Your task to perform on an android device: What's the news in the Bahamas? Image 0: 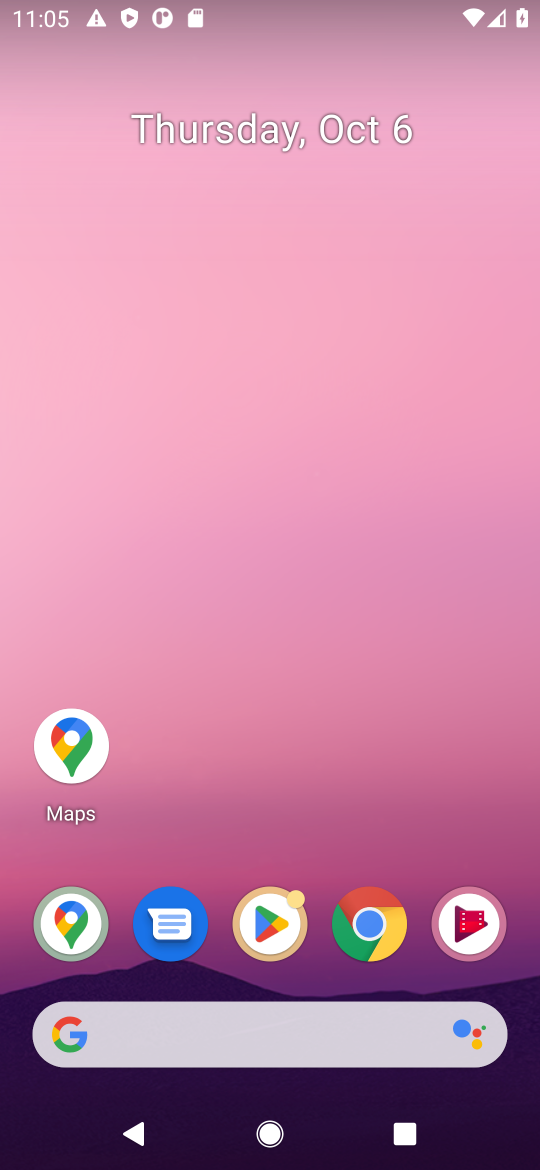
Step 0: click (369, 931)
Your task to perform on an android device: What's the news in the Bahamas? Image 1: 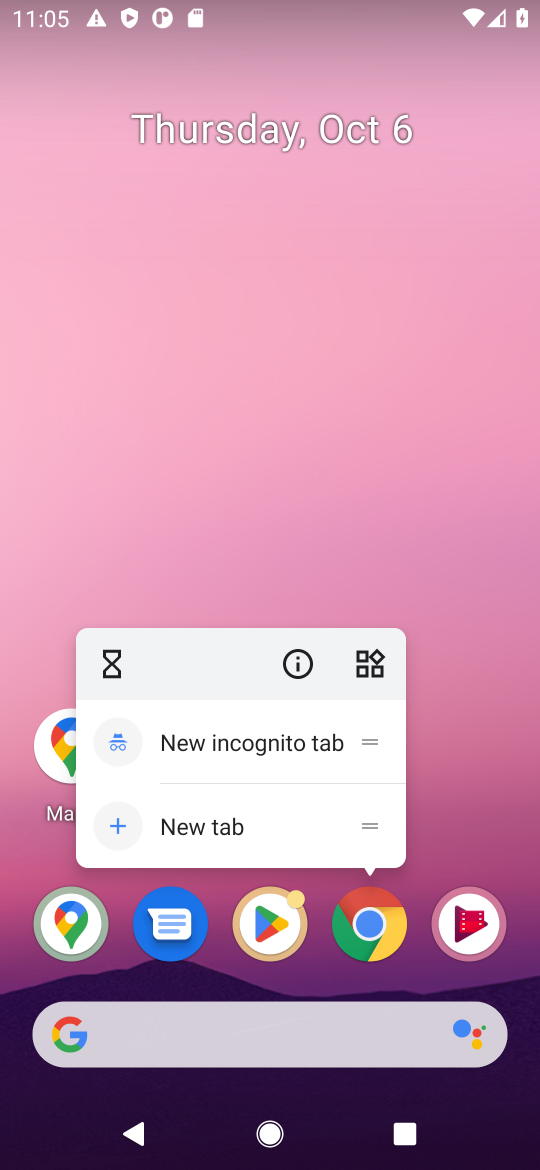
Step 1: click (369, 931)
Your task to perform on an android device: What's the news in the Bahamas? Image 2: 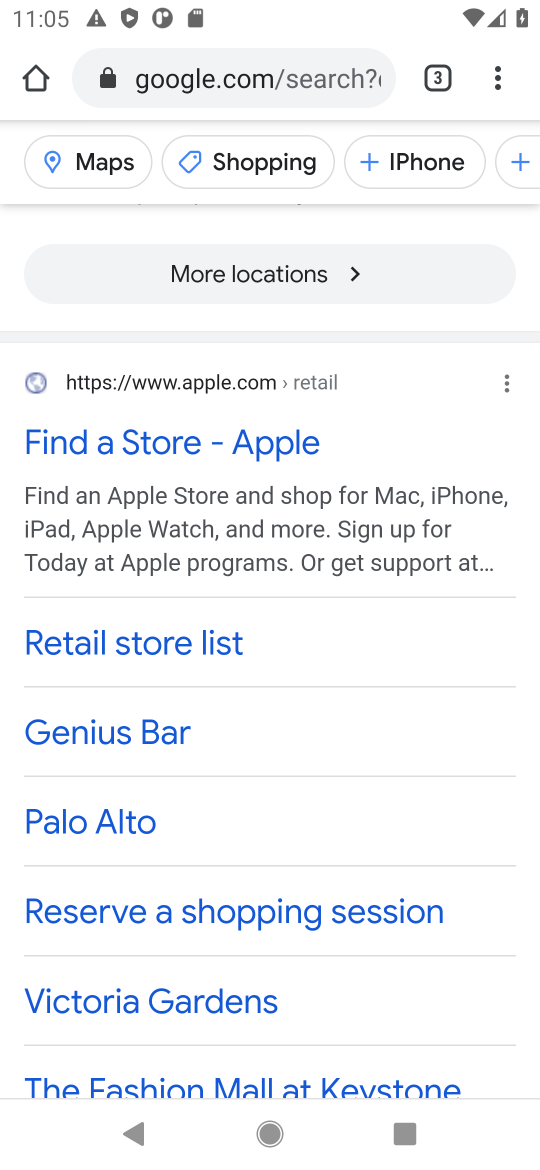
Step 2: click (280, 86)
Your task to perform on an android device: What's the news in the Bahamas? Image 3: 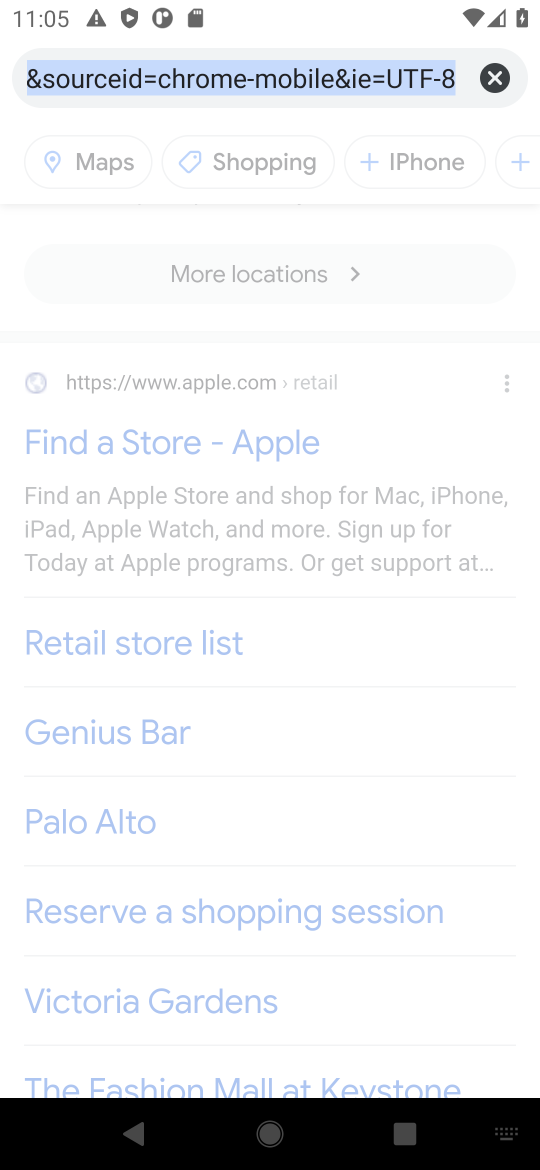
Step 3: click (496, 76)
Your task to perform on an android device: What's the news in the Bahamas? Image 4: 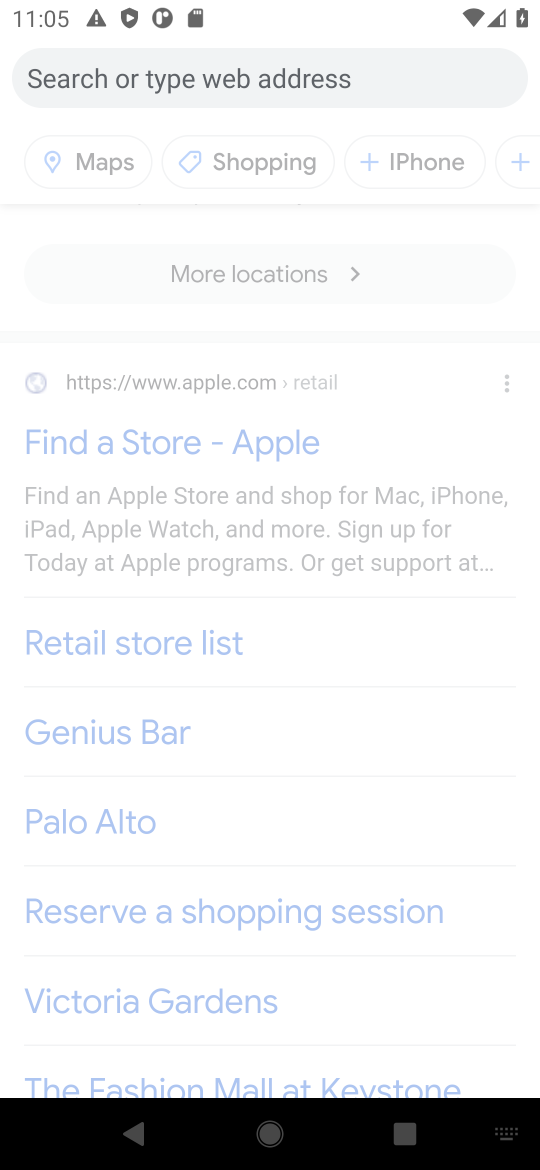
Step 4: type "news in the Bahamas"
Your task to perform on an android device: What's the news in the Bahamas? Image 5: 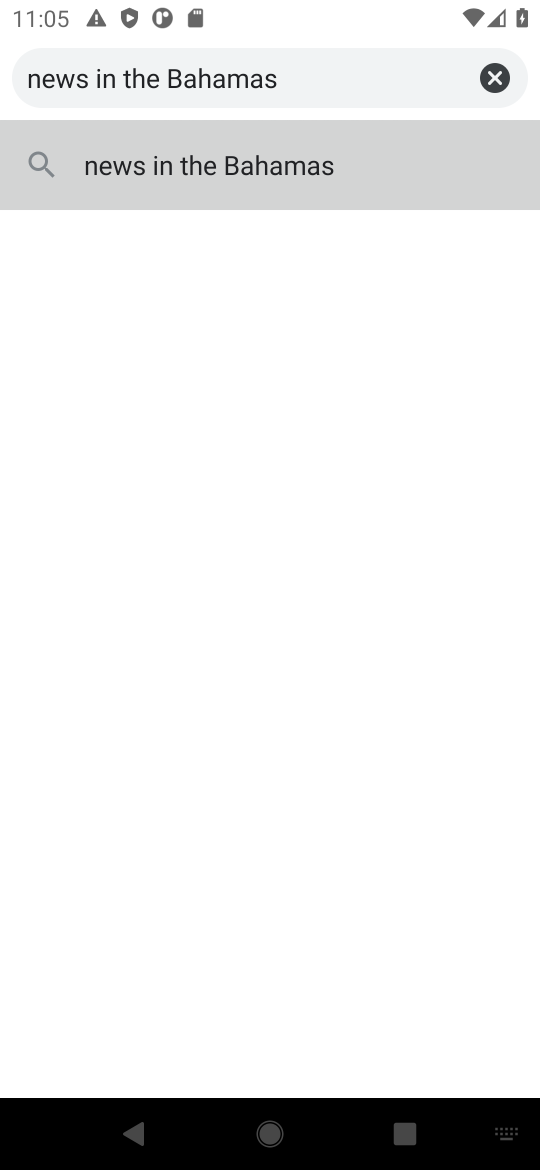
Step 5: click (251, 172)
Your task to perform on an android device: What's the news in the Bahamas? Image 6: 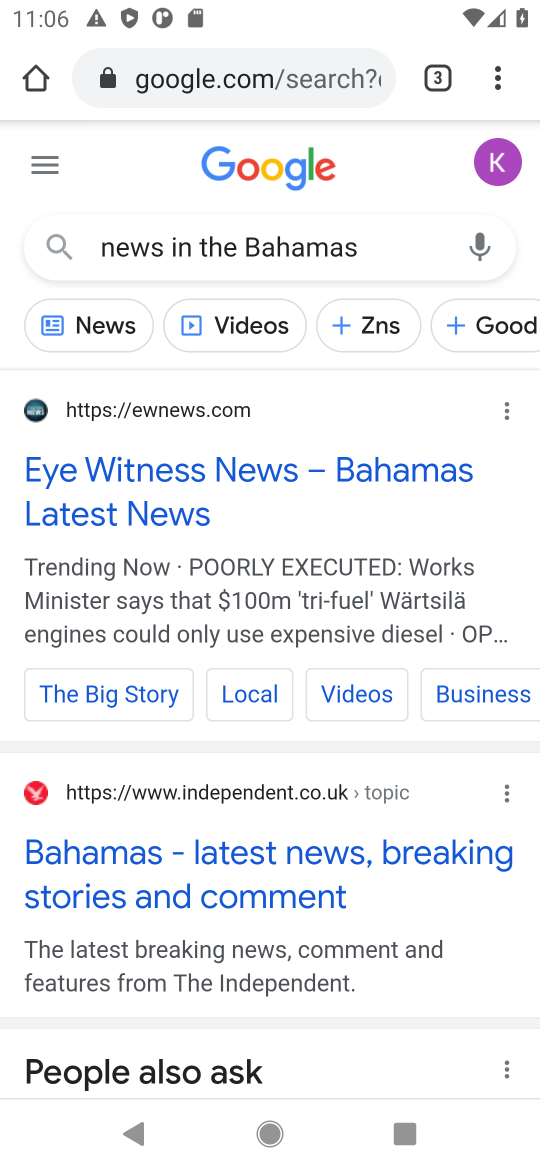
Step 6: click (115, 328)
Your task to perform on an android device: What's the news in the Bahamas? Image 7: 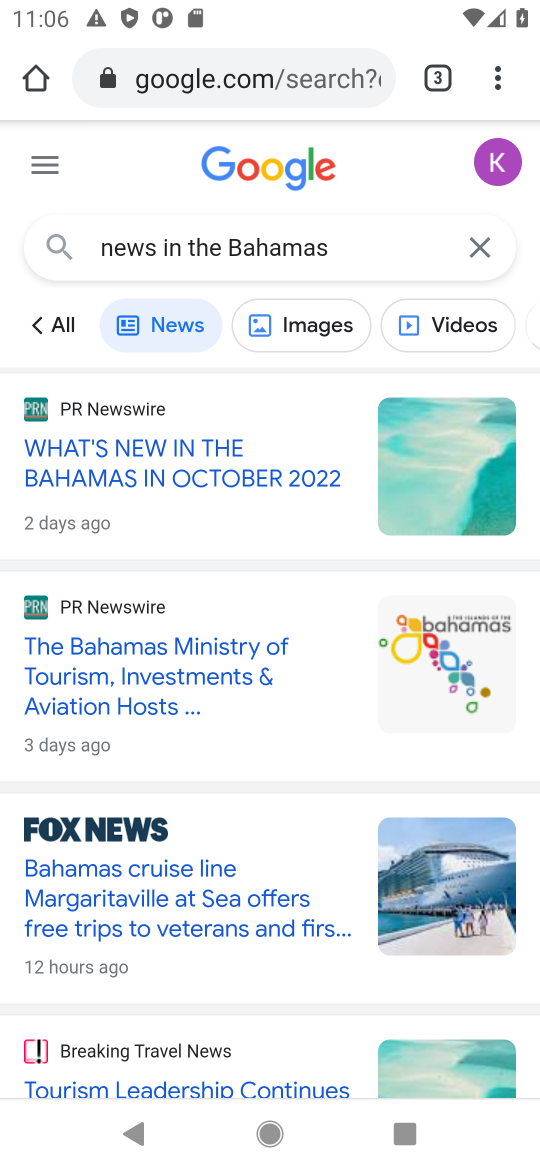
Step 7: task complete